Your task to perform on an android device: Check the settings for the Google Photos app Image 0: 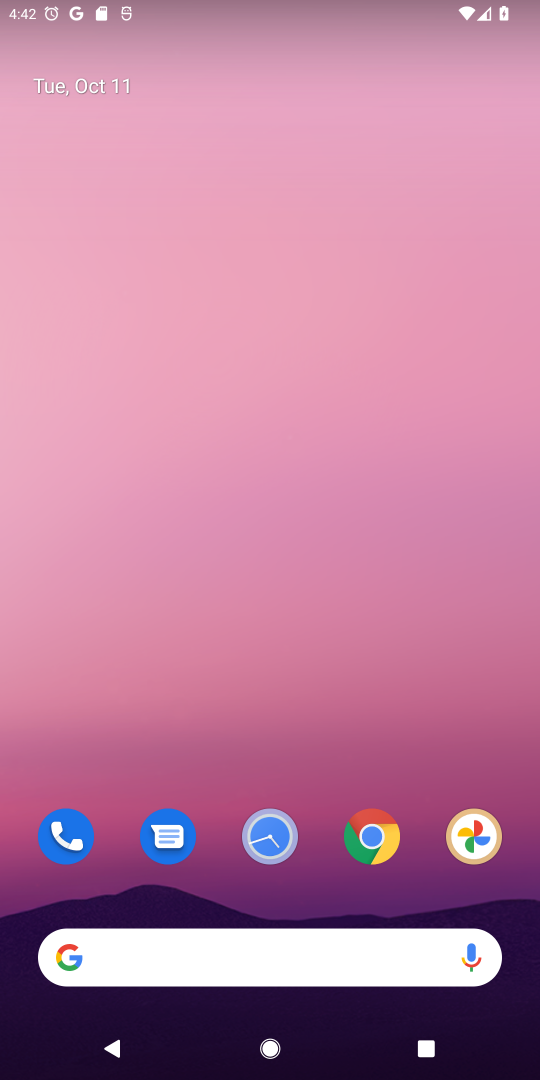
Step 0: drag from (322, 898) to (317, 115)
Your task to perform on an android device: Check the settings for the Google Photos app Image 1: 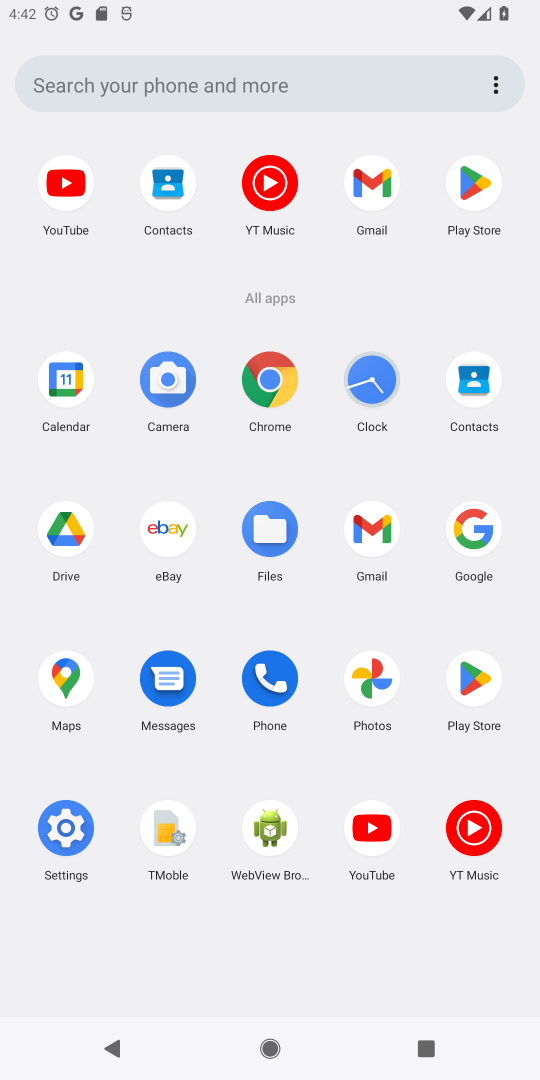
Step 1: click (364, 714)
Your task to perform on an android device: Check the settings for the Google Photos app Image 2: 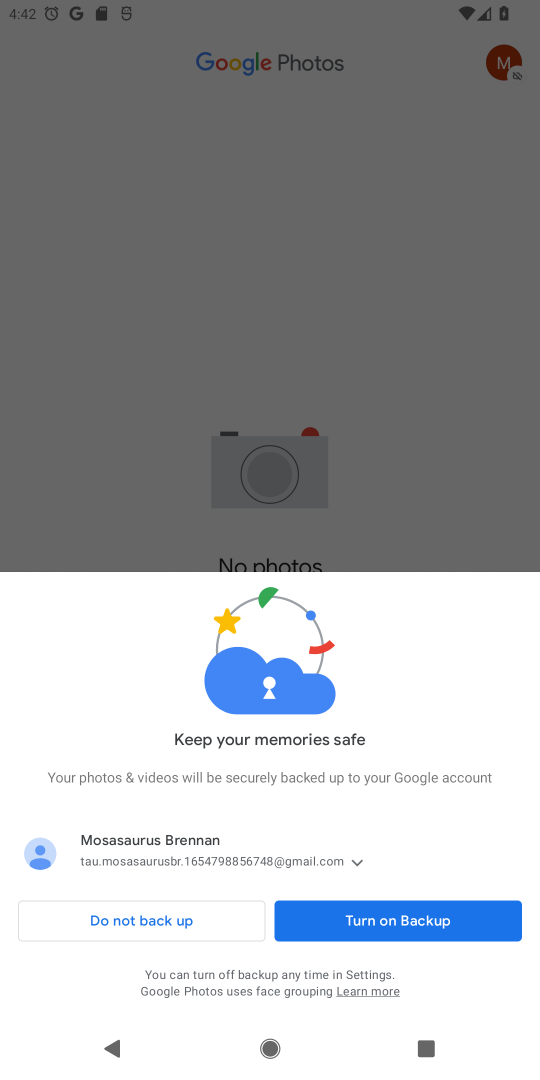
Step 2: task complete